Your task to perform on an android device: turn on javascript in the chrome app Image 0: 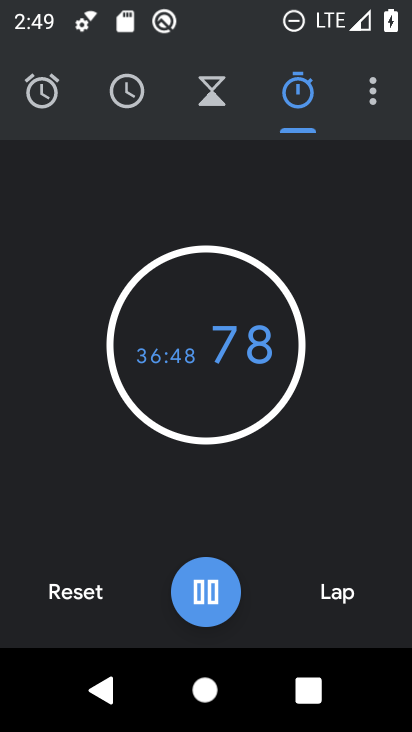
Step 0: press home button
Your task to perform on an android device: turn on javascript in the chrome app Image 1: 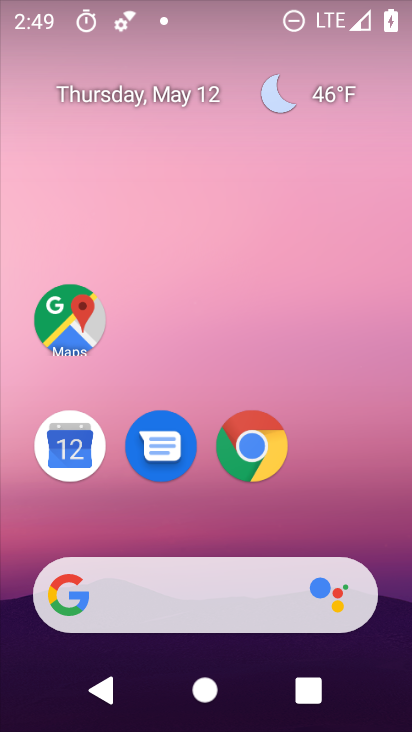
Step 1: click (253, 445)
Your task to perform on an android device: turn on javascript in the chrome app Image 2: 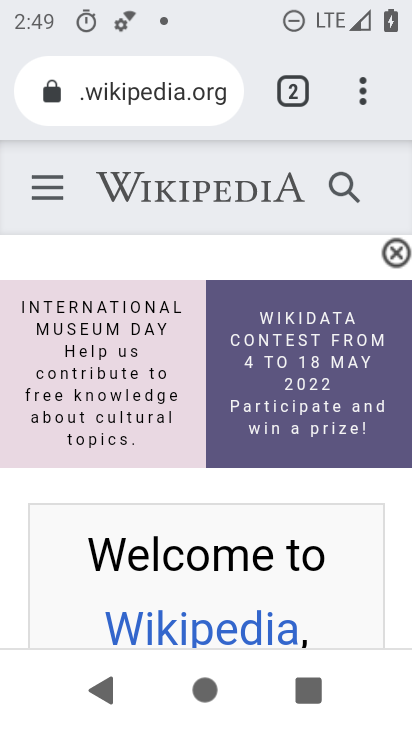
Step 2: click (364, 88)
Your task to perform on an android device: turn on javascript in the chrome app Image 3: 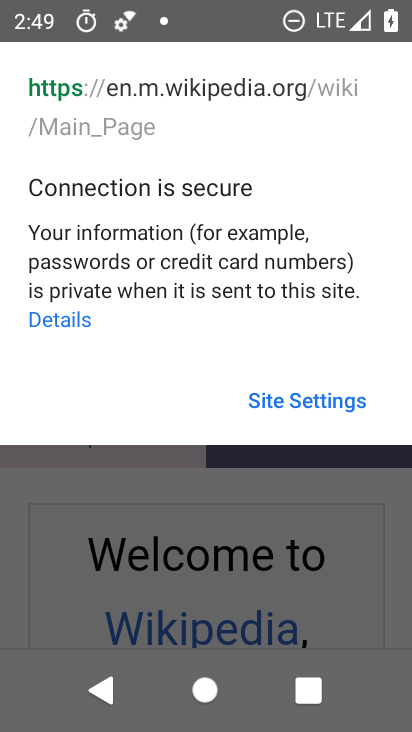
Step 3: click (260, 455)
Your task to perform on an android device: turn on javascript in the chrome app Image 4: 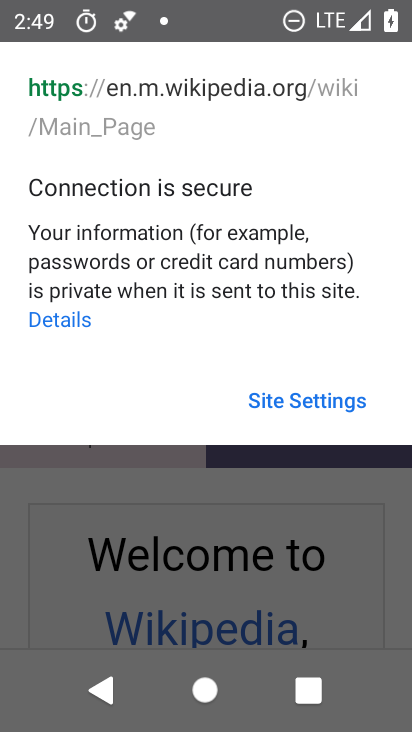
Step 4: click (280, 404)
Your task to perform on an android device: turn on javascript in the chrome app Image 5: 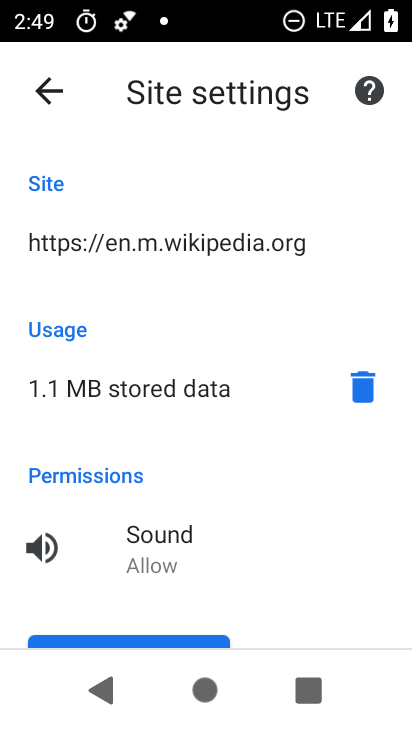
Step 5: drag from (183, 548) to (184, 275)
Your task to perform on an android device: turn on javascript in the chrome app Image 6: 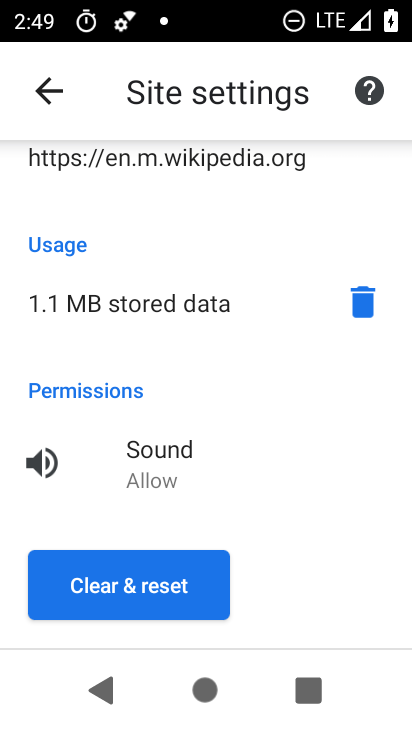
Step 6: click (44, 84)
Your task to perform on an android device: turn on javascript in the chrome app Image 7: 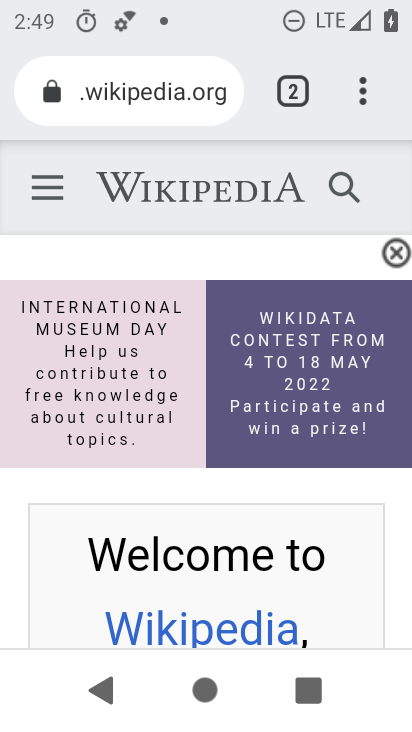
Step 7: drag from (363, 81) to (198, 483)
Your task to perform on an android device: turn on javascript in the chrome app Image 8: 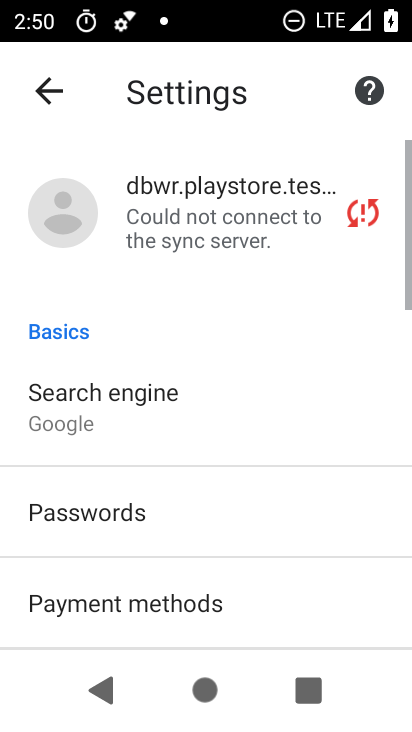
Step 8: drag from (219, 553) to (305, 301)
Your task to perform on an android device: turn on javascript in the chrome app Image 9: 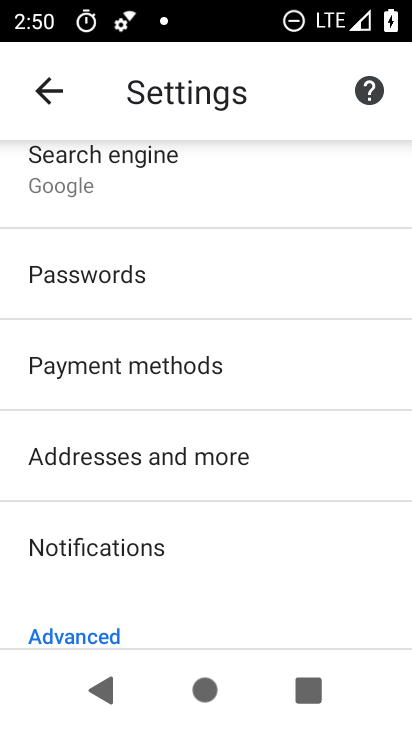
Step 9: drag from (268, 517) to (345, 299)
Your task to perform on an android device: turn on javascript in the chrome app Image 10: 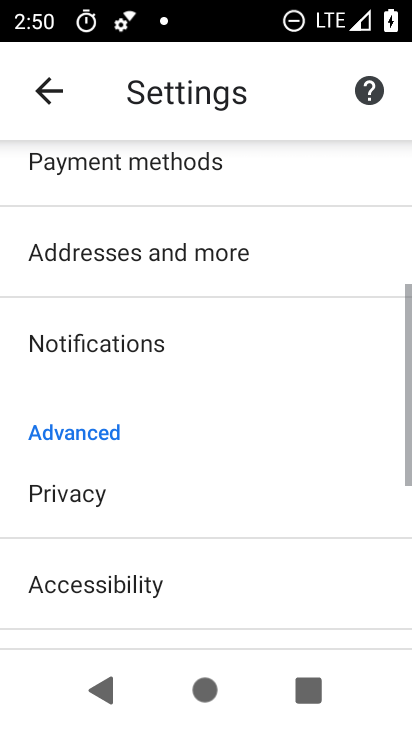
Step 10: drag from (294, 562) to (319, 362)
Your task to perform on an android device: turn on javascript in the chrome app Image 11: 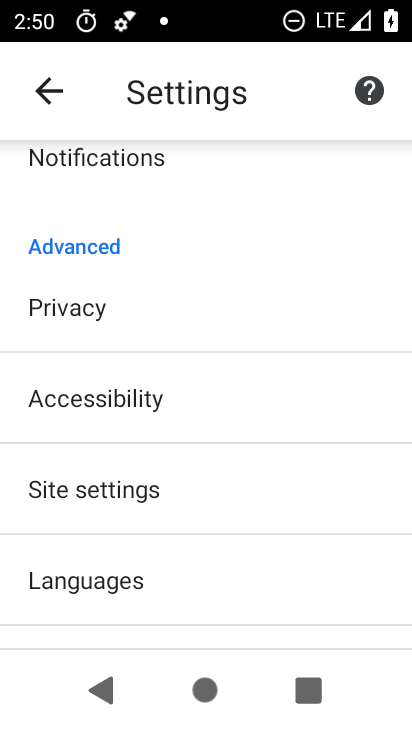
Step 11: click (259, 485)
Your task to perform on an android device: turn on javascript in the chrome app Image 12: 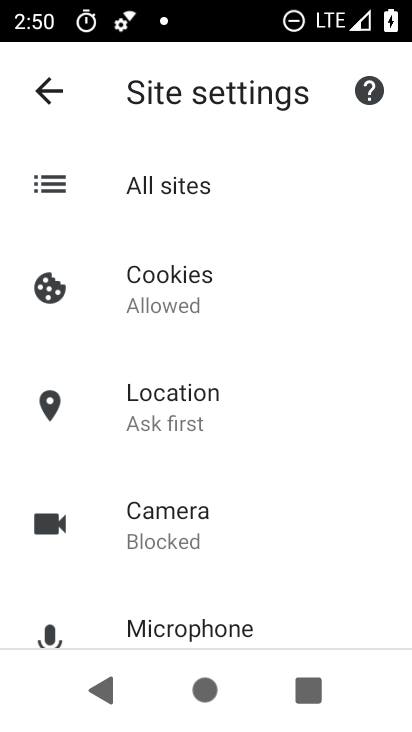
Step 12: drag from (234, 598) to (322, 285)
Your task to perform on an android device: turn on javascript in the chrome app Image 13: 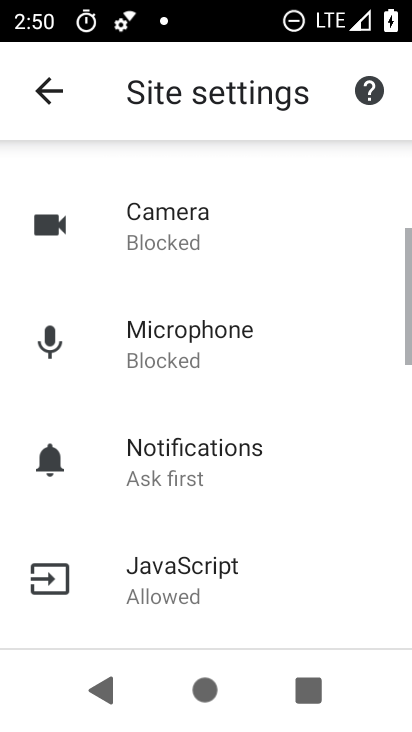
Step 13: click (241, 599)
Your task to perform on an android device: turn on javascript in the chrome app Image 14: 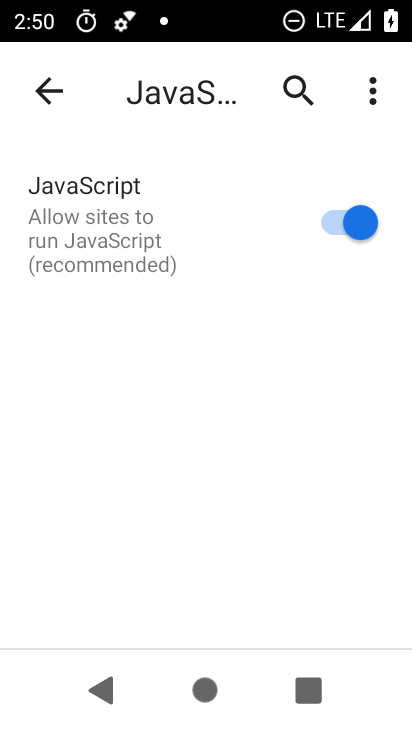
Step 14: task complete